Your task to perform on an android device: What is the price of a 12' ladder at Lowes? Image 0: 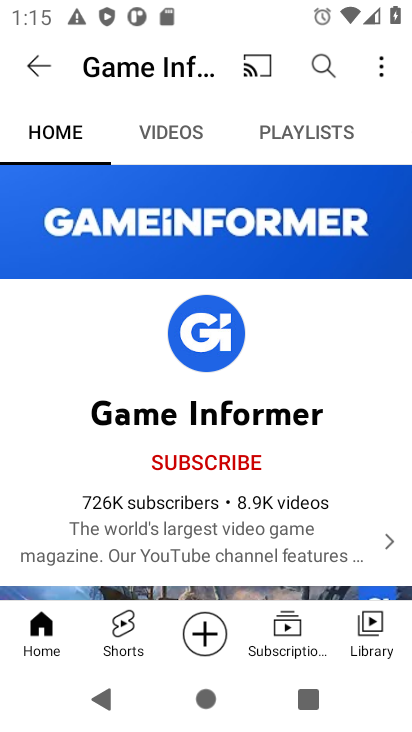
Step 0: press home button
Your task to perform on an android device: What is the price of a 12' ladder at Lowes? Image 1: 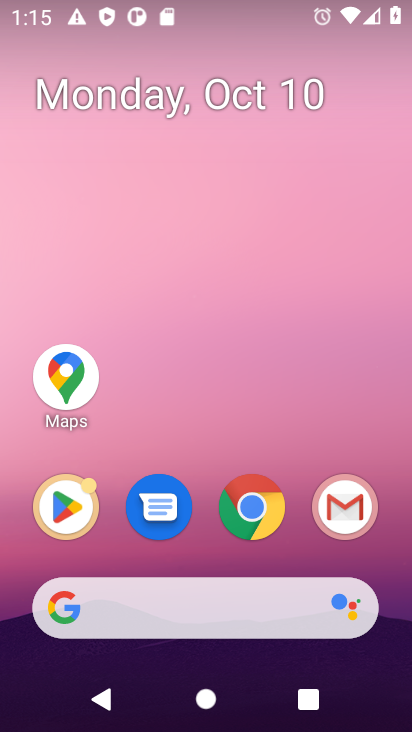
Step 1: click (177, 612)
Your task to perform on an android device: What is the price of a 12' ladder at Lowes? Image 2: 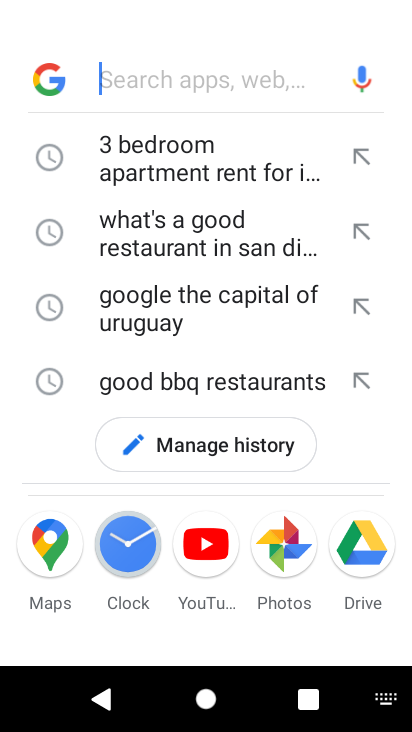
Step 2: type "What is the price of a 12' ladder at Lowes"
Your task to perform on an android device: What is the price of a 12' ladder at Lowes? Image 3: 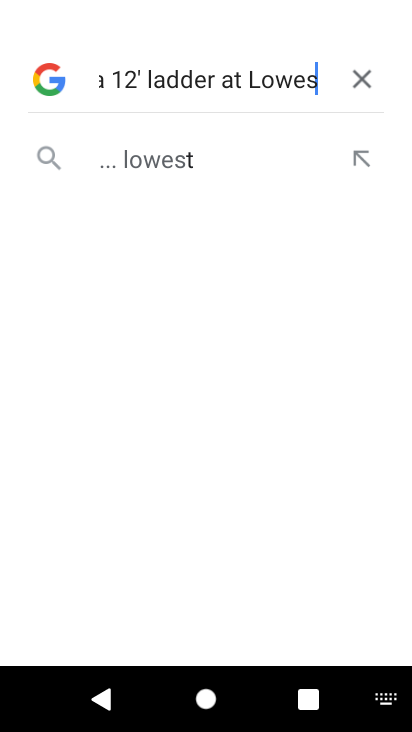
Step 3: press enter
Your task to perform on an android device: What is the price of a 12' ladder at Lowes? Image 4: 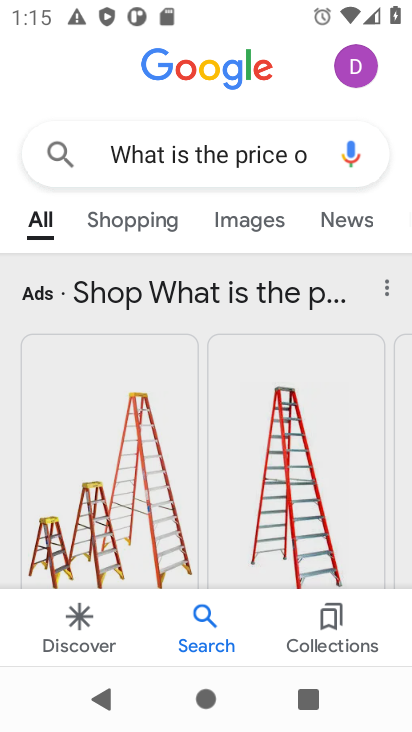
Step 4: task complete